Your task to perform on an android device: Open ESPN.com Image 0: 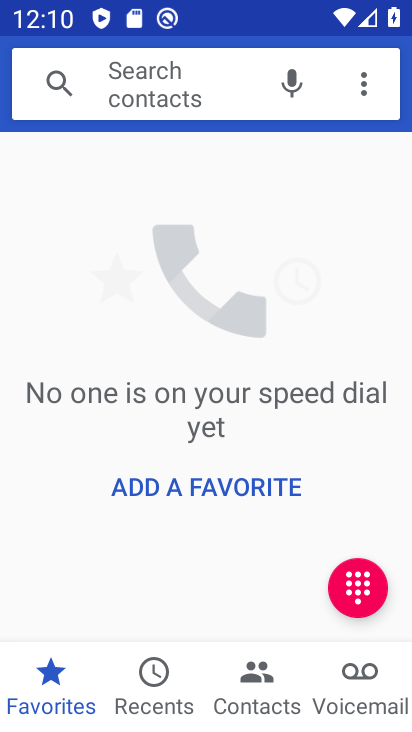
Step 0: press home button
Your task to perform on an android device: Open ESPN.com Image 1: 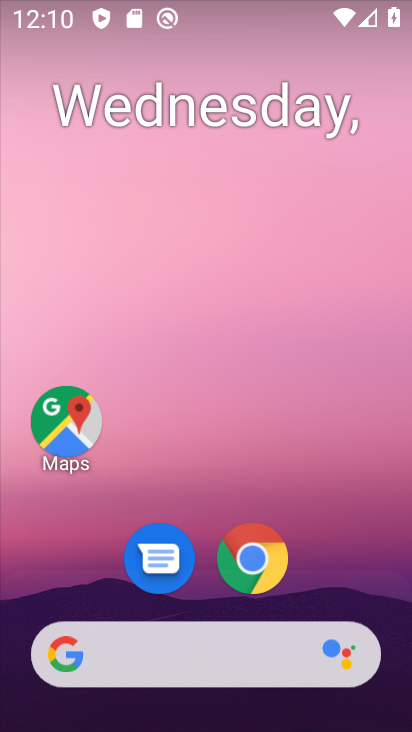
Step 1: click (253, 563)
Your task to perform on an android device: Open ESPN.com Image 2: 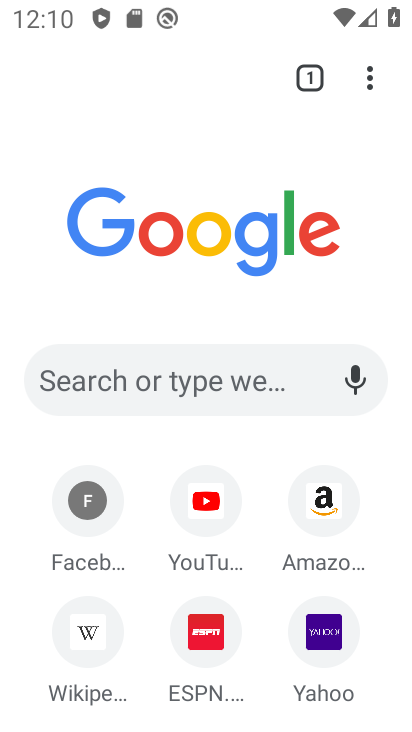
Step 2: click (197, 385)
Your task to perform on an android device: Open ESPN.com Image 3: 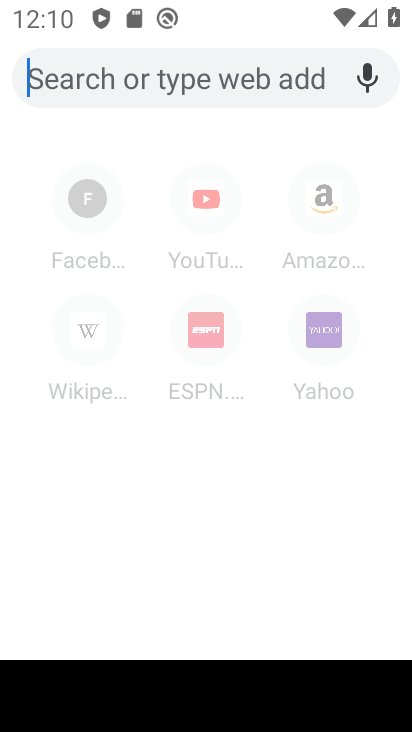
Step 3: type "ESPN.com"
Your task to perform on an android device: Open ESPN.com Image 4: 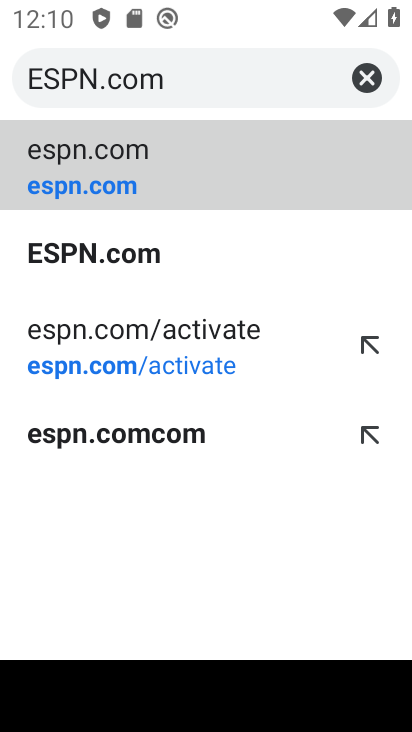
Step 4: click (101, 160)
Your task to perform on an android device: Open ESPN.com Image 5: 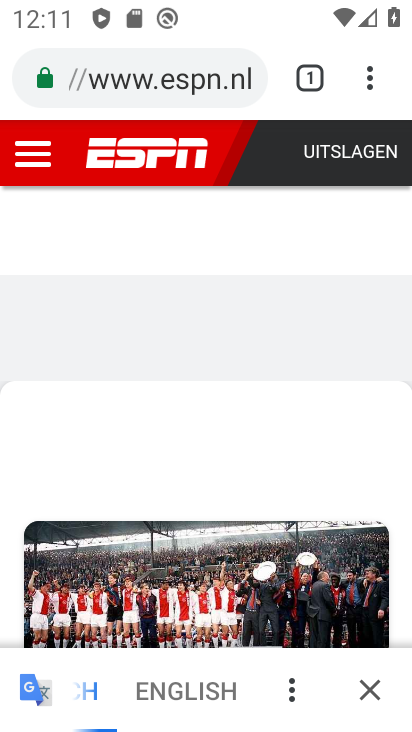
Step 5: task complete